Your task to perform on an android device: open sync settings in chrome Image 0: 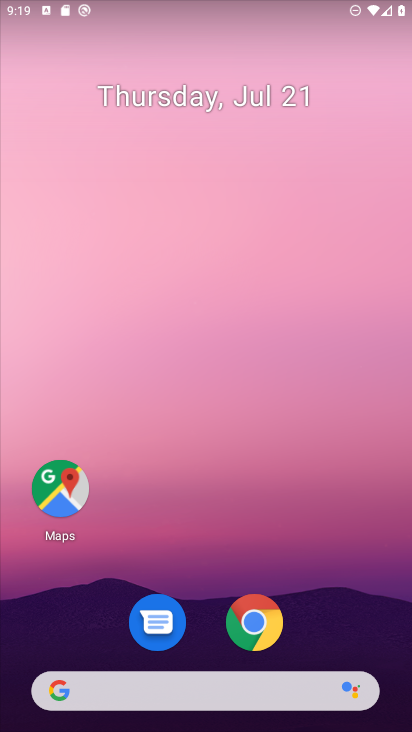
Step 0: click (264, 622)
Your task to perform on an android device: open sync settings in chrome Image 1: 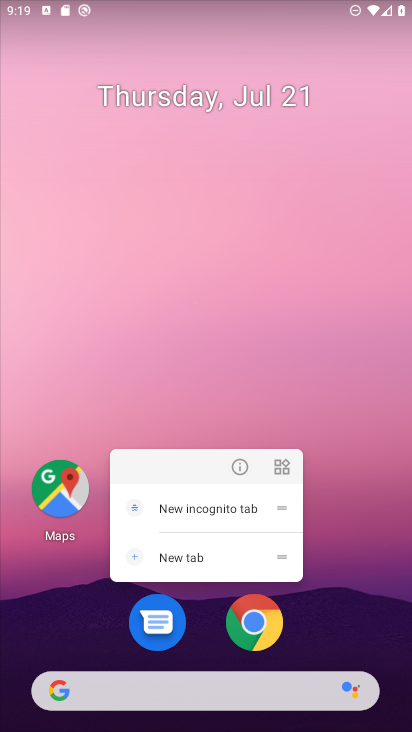
Step 1: click (264, 622)
Your task to perform on an android device: open sync settings in chrome Image 2: 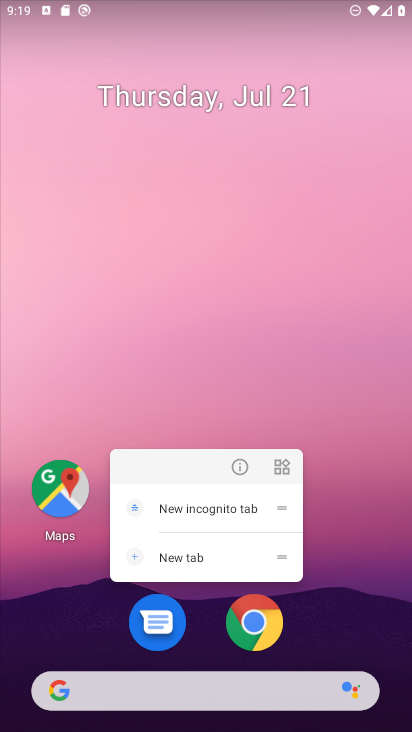
Step 2: click (264, 622)
Your task to perform on an android device: open sync settings in chrome Image 3: 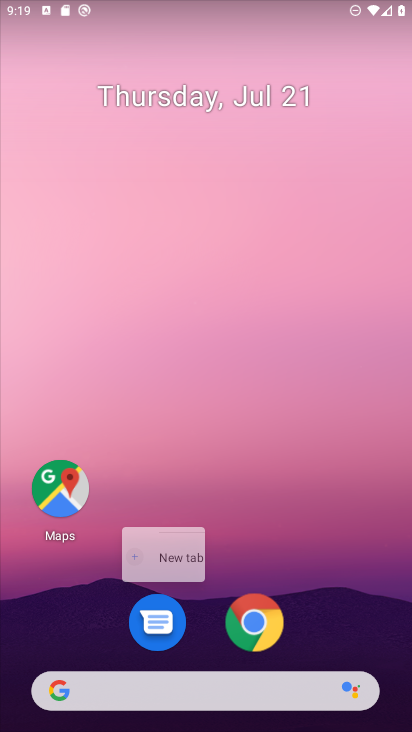
Step 3: click (264, 622)
Your task to perform on an android device: open sync settings in chrome Image 4: 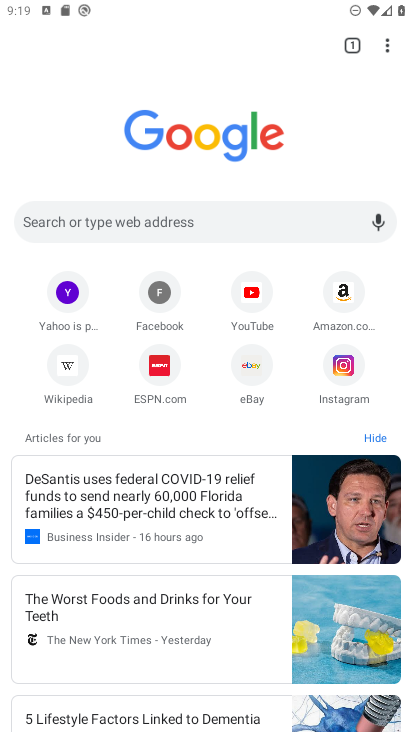
Step 4: click (387, 44)
Your task to perform on an android device: open sync settings in chrome Image 5: 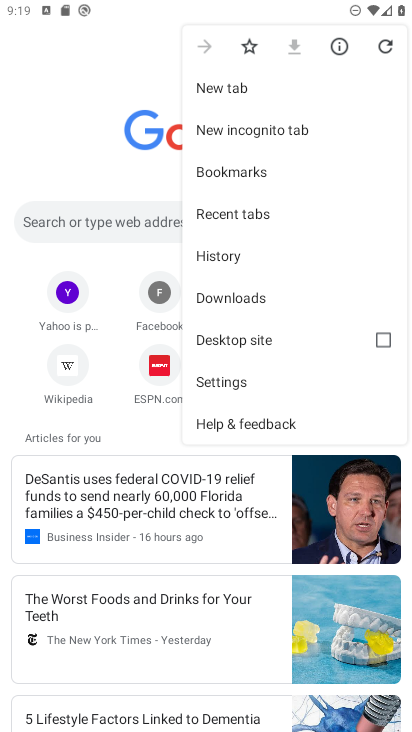
Step 5: click (246, 380)
Your task to perform on an android device: open sync settings in chrome Image 6: 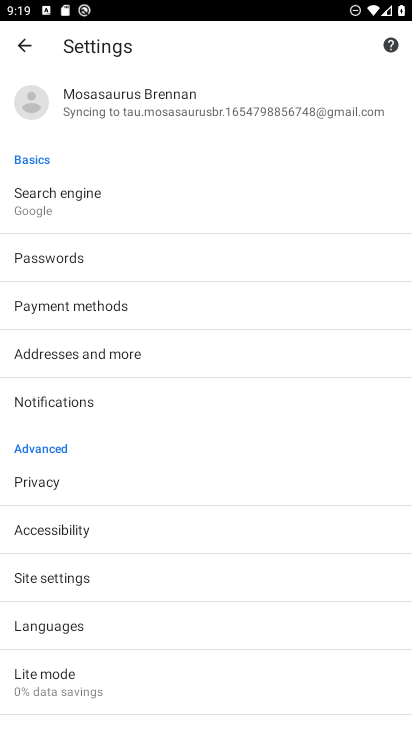
Step 6: click (120, 102)
Your task to perform on an android device: open sync settings in chrome Image 7: 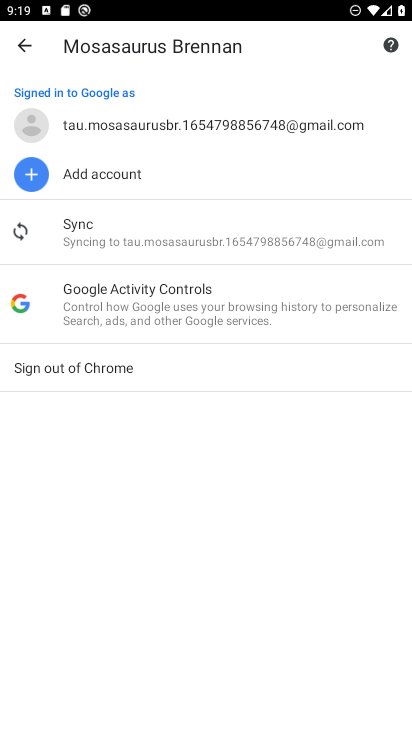
Step 7: task complete